Your task to perform on an android device: clear all cookies in the chrome app Image 0: 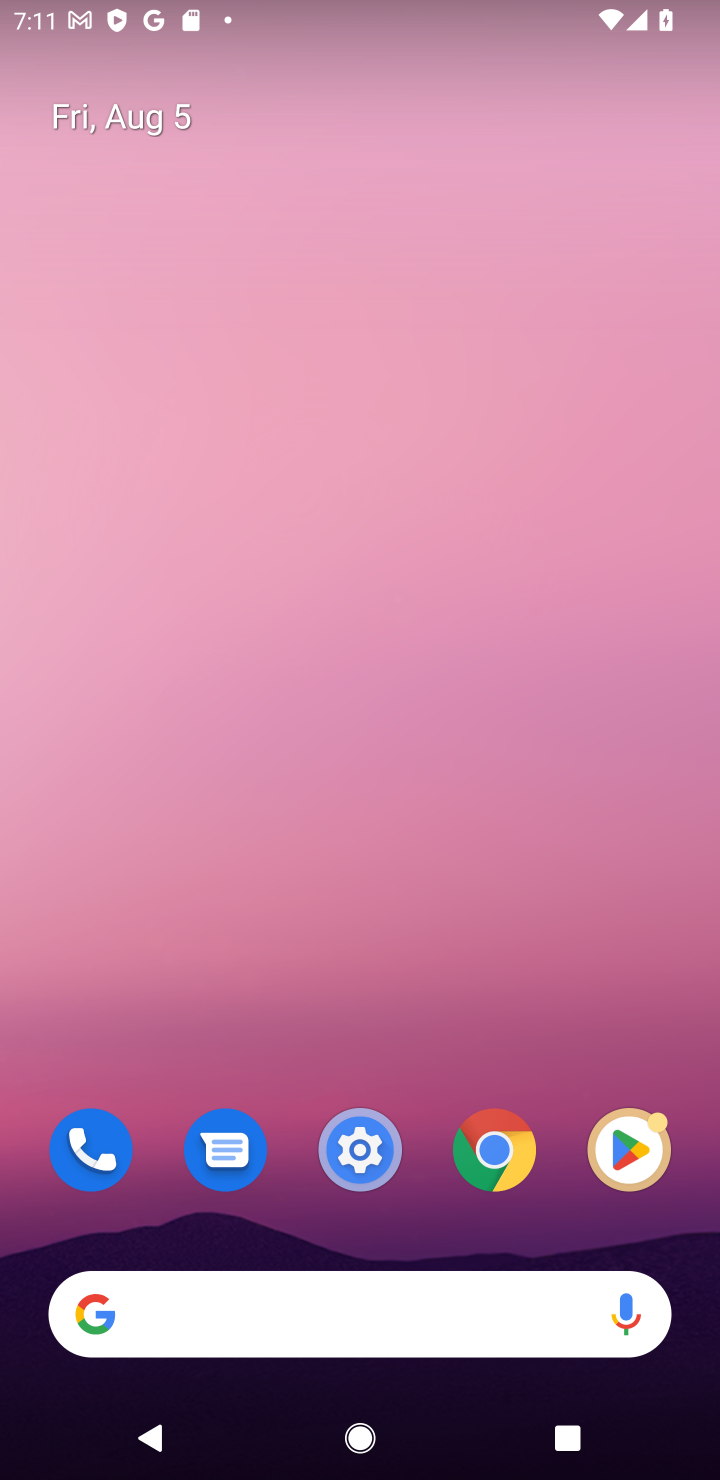
Step 0: drag from (427, 1016) to (448, 438)
Your task to perform on an android device: clear all cookies in the chrome app Image 1: 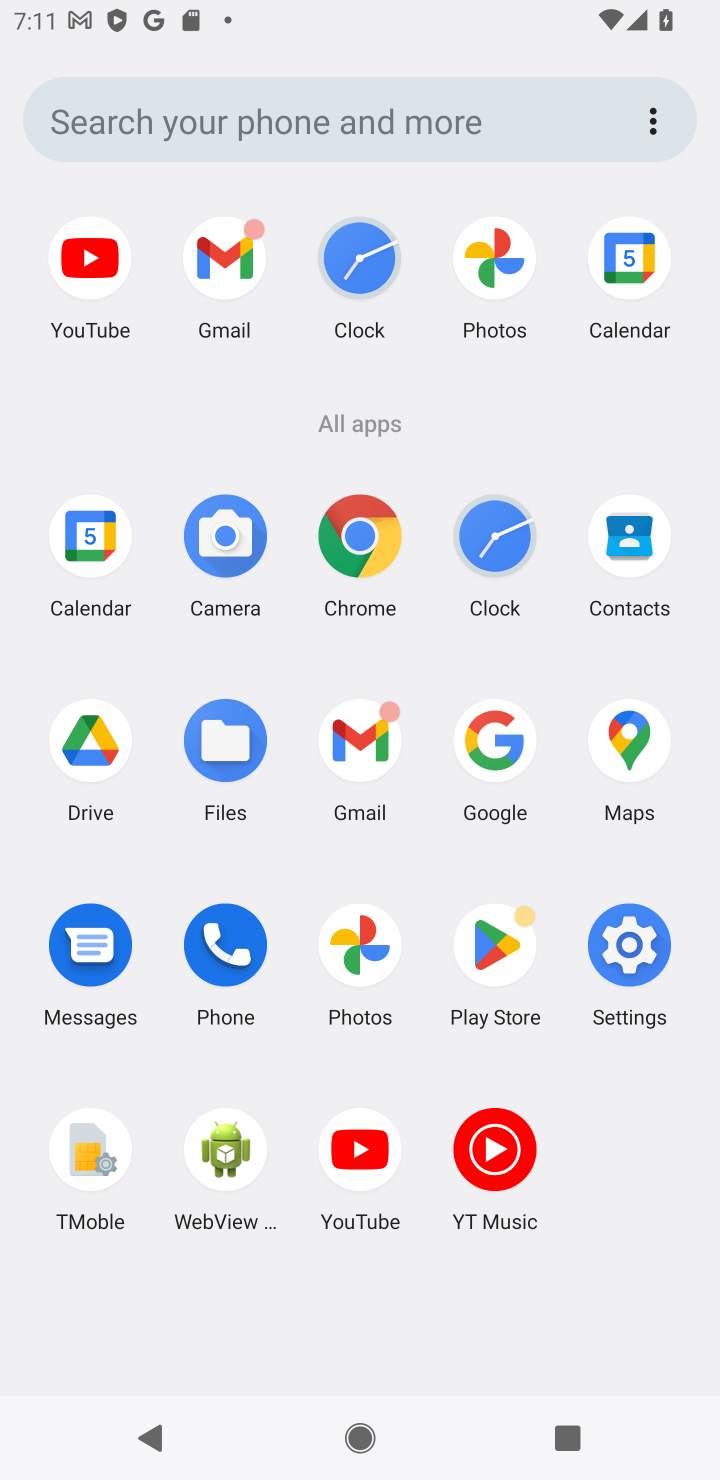
Step 1: click (376, 527)
Your task to perform on an android device: clear all cookies in the chrome app Image 2: 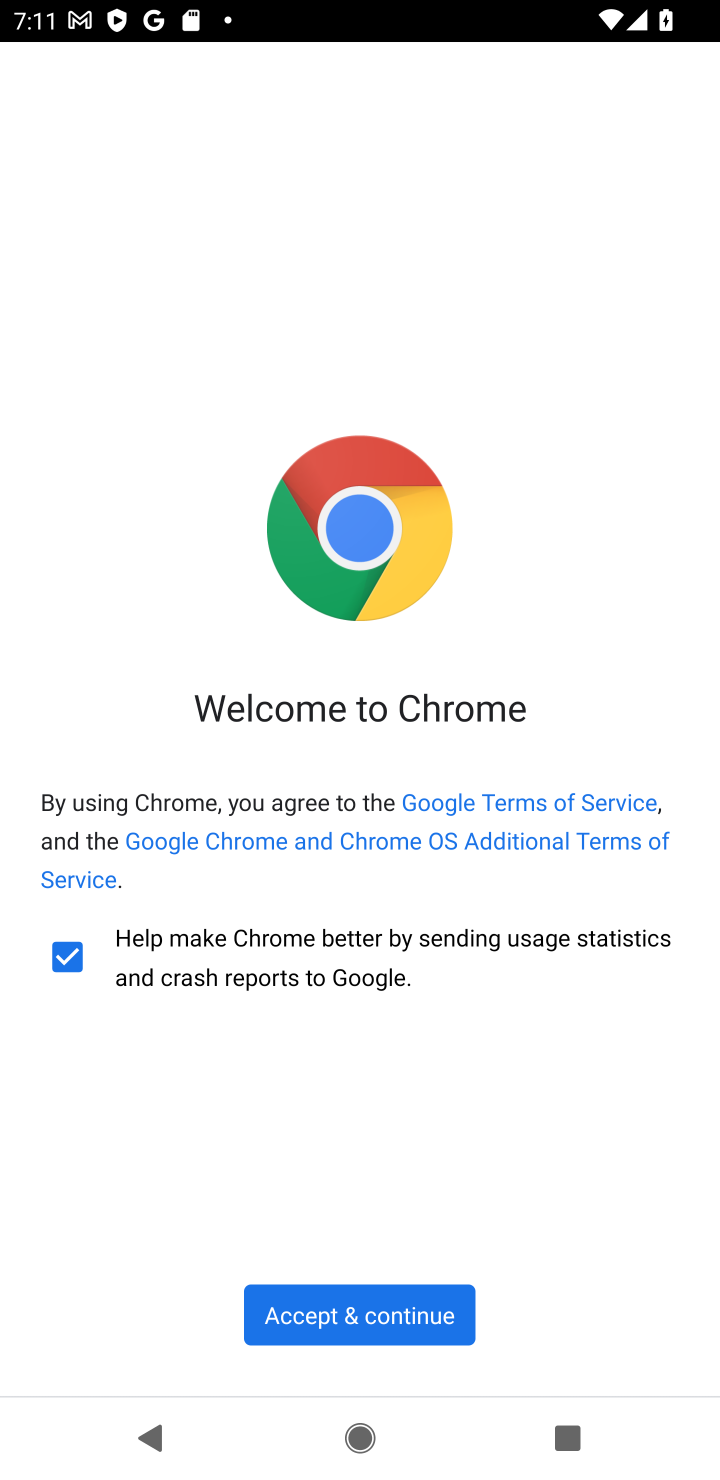
Step 2: click (335, 1309)
Your task to perform on an android device: clear all cookies in the chrome app Image 3: 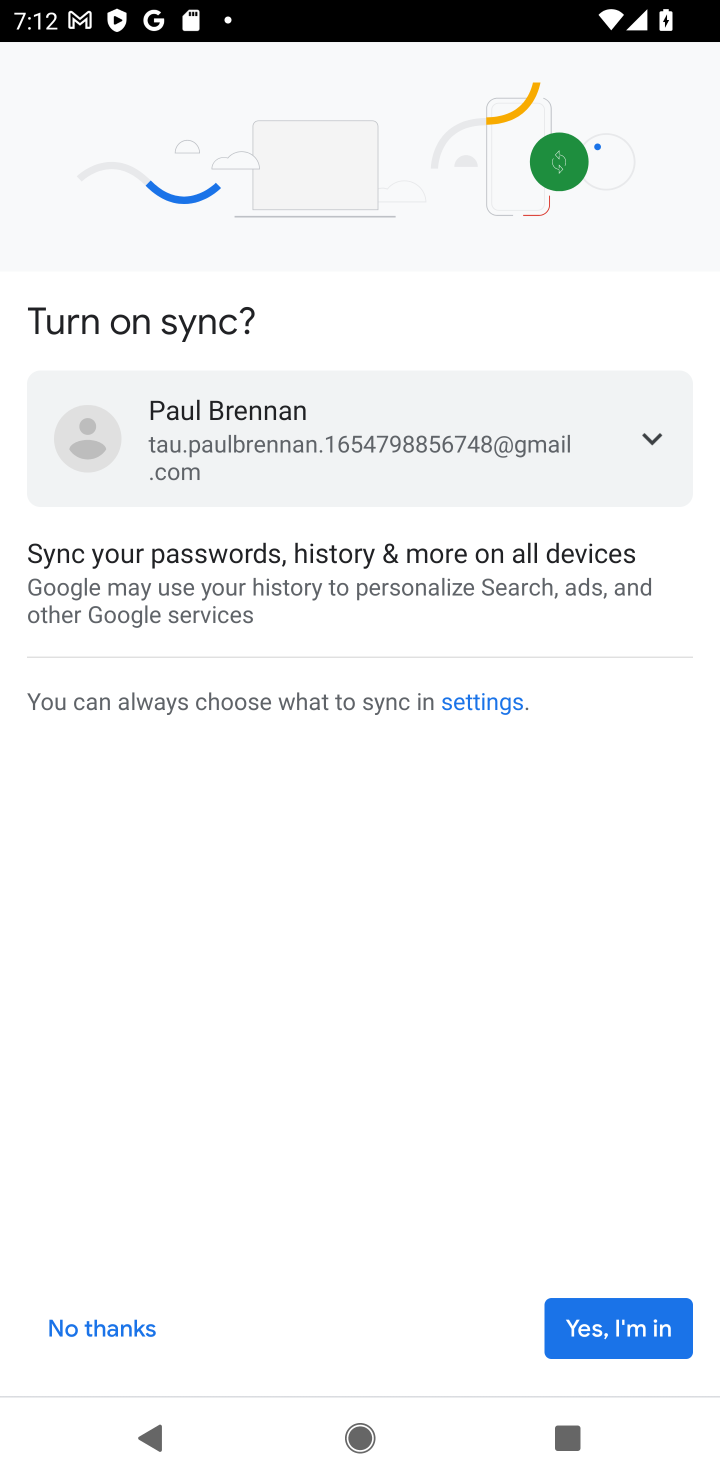
Step 3: click (607, 1330)
Your task to perform on an android device: clear all cookies in the chrome app Image 4: 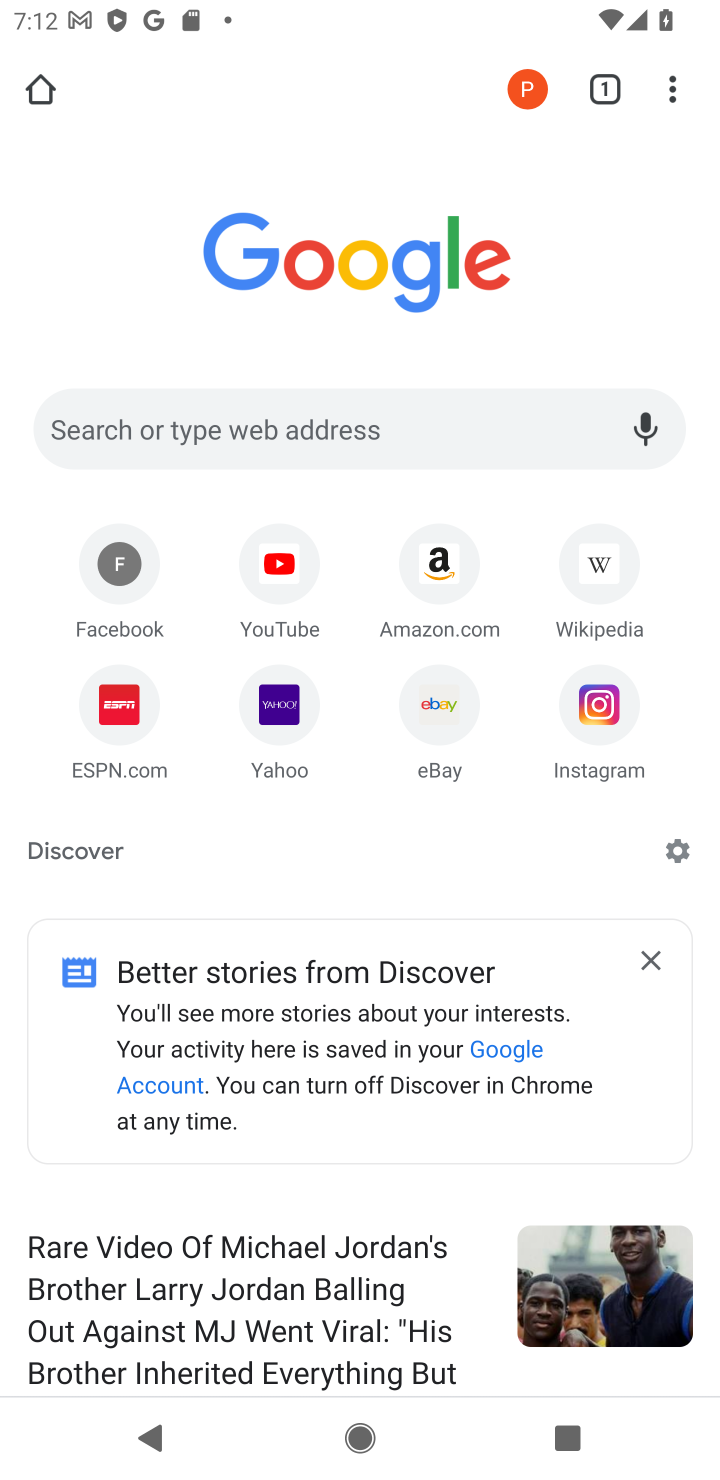
Step 4: click (675, 100)
Your task to perform on an android device: clear all cookies in the chrome app Image 5: 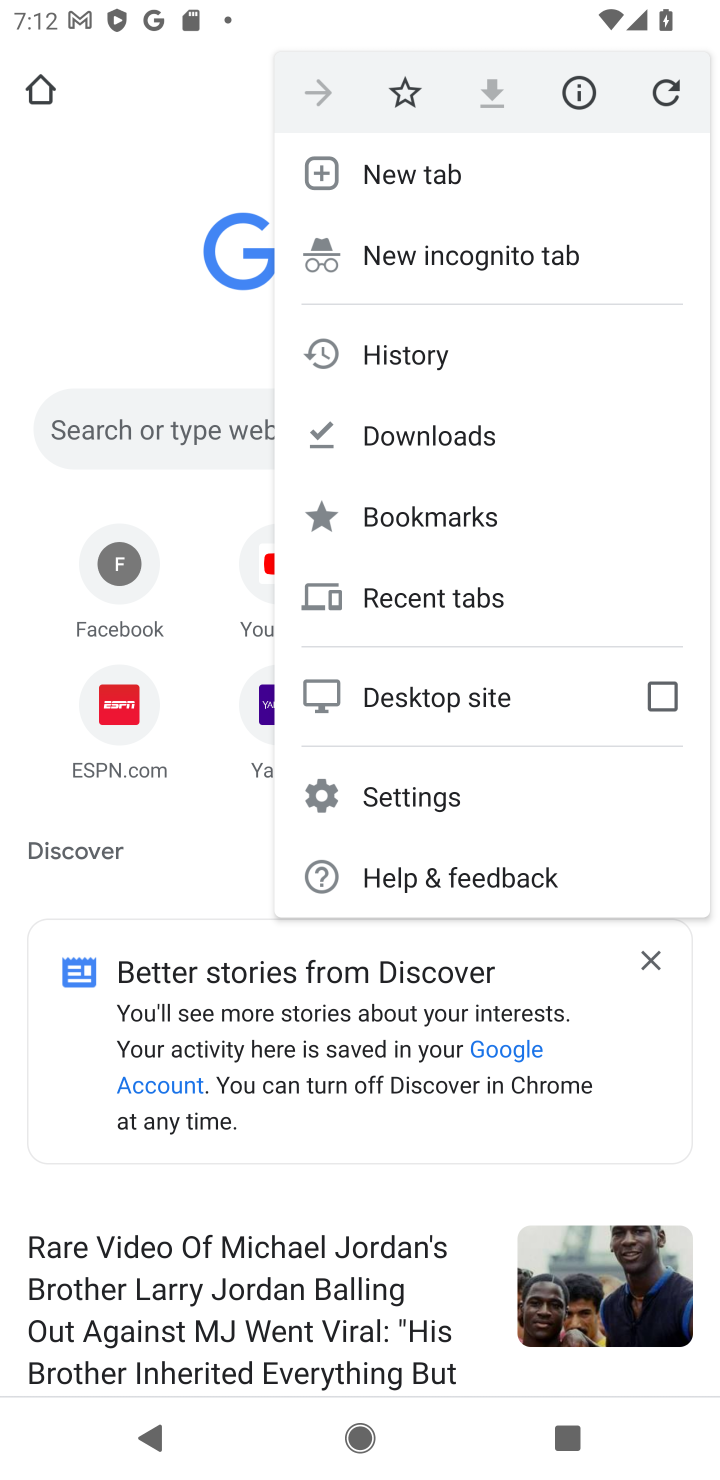
Step 5: click (441, 789)
Your task to perform on an android device: clear all cookies in the chrome app Image 6: 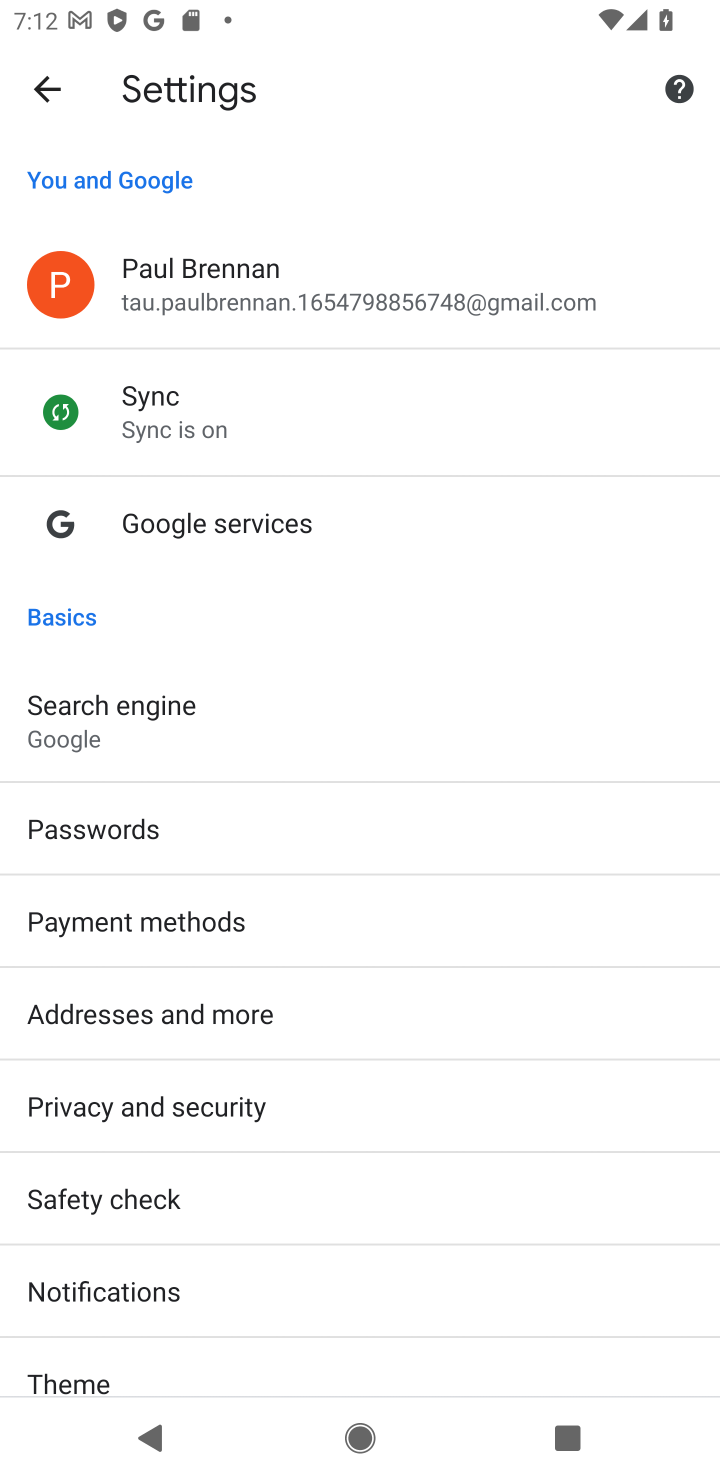
Step 6: drag from (489, 1114) to (502, 883)
Your task to perform on an android device: clear all cookies in the chrome app Image 7: 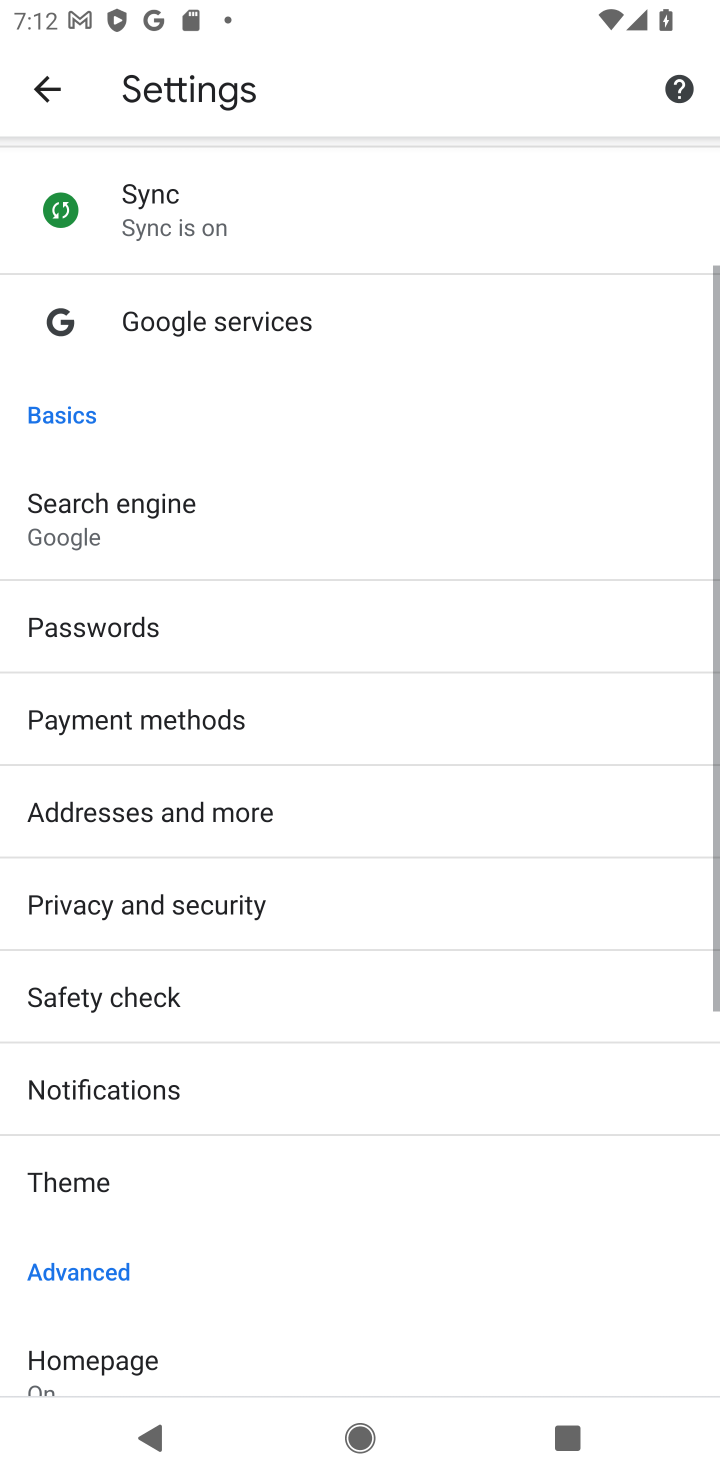
Step 7: drag from (479, 1139) to (520, 718)
Your task to perform on an android device: clear all cookies in the chrome app Image 8: 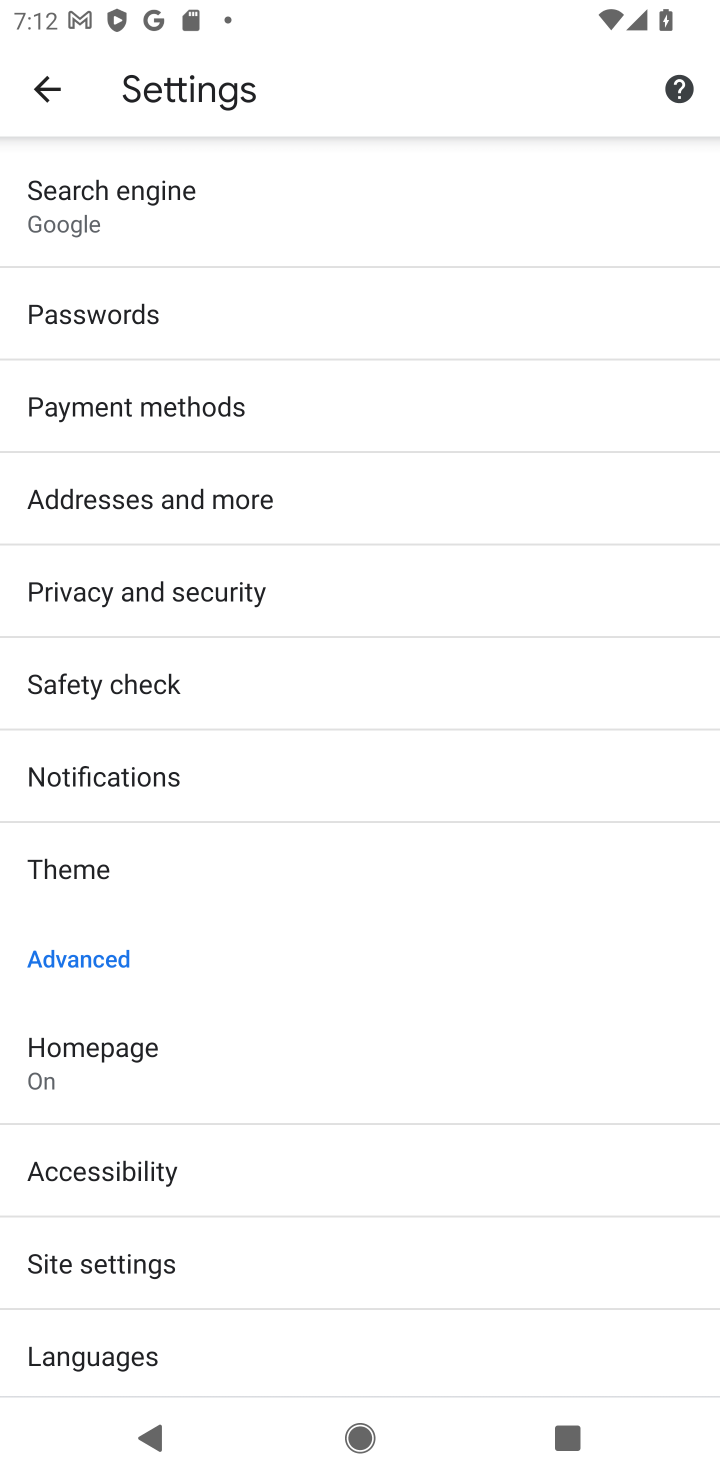
Step 8: drag from (488, 1172) to (512, 774)
Your task to perform on an android device: clear all cookies in the chrome app Image 9: 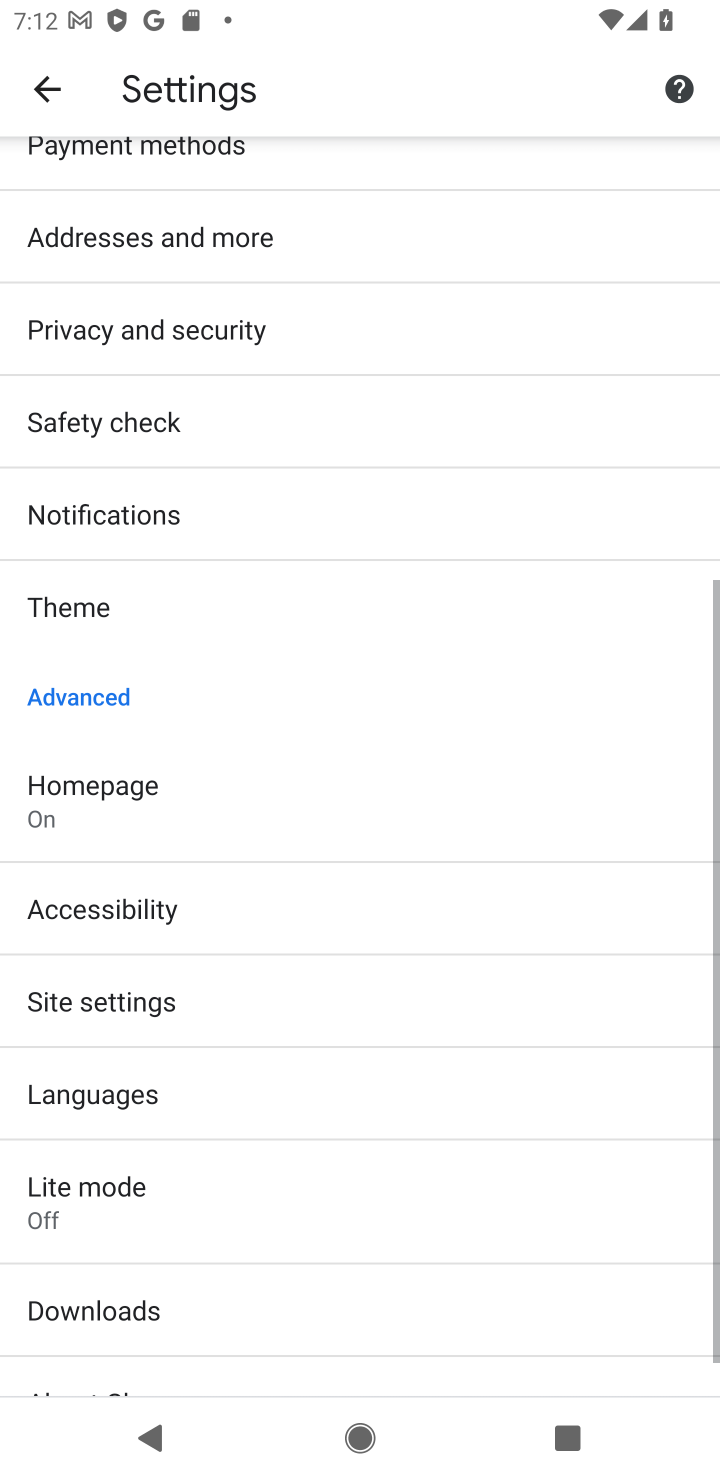
Step 9: drag from (473, 1128) to (504, 792)
Your task to perform on an android device: clear all cookies in the chrome app Image 10: 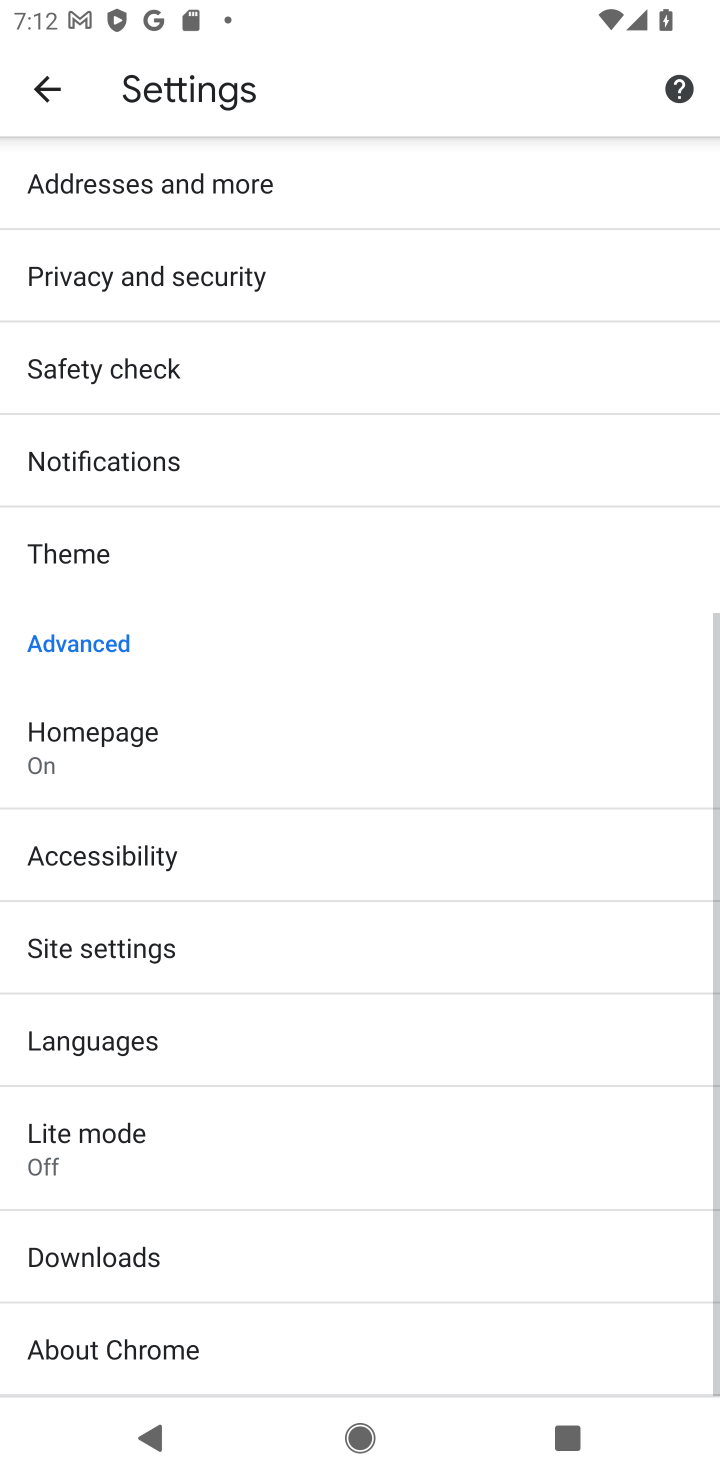
Step 10: drag from (500, 1151) to (539, 790)
Your task to perform on an android device: clear all cookies in the chrome app Image 11: 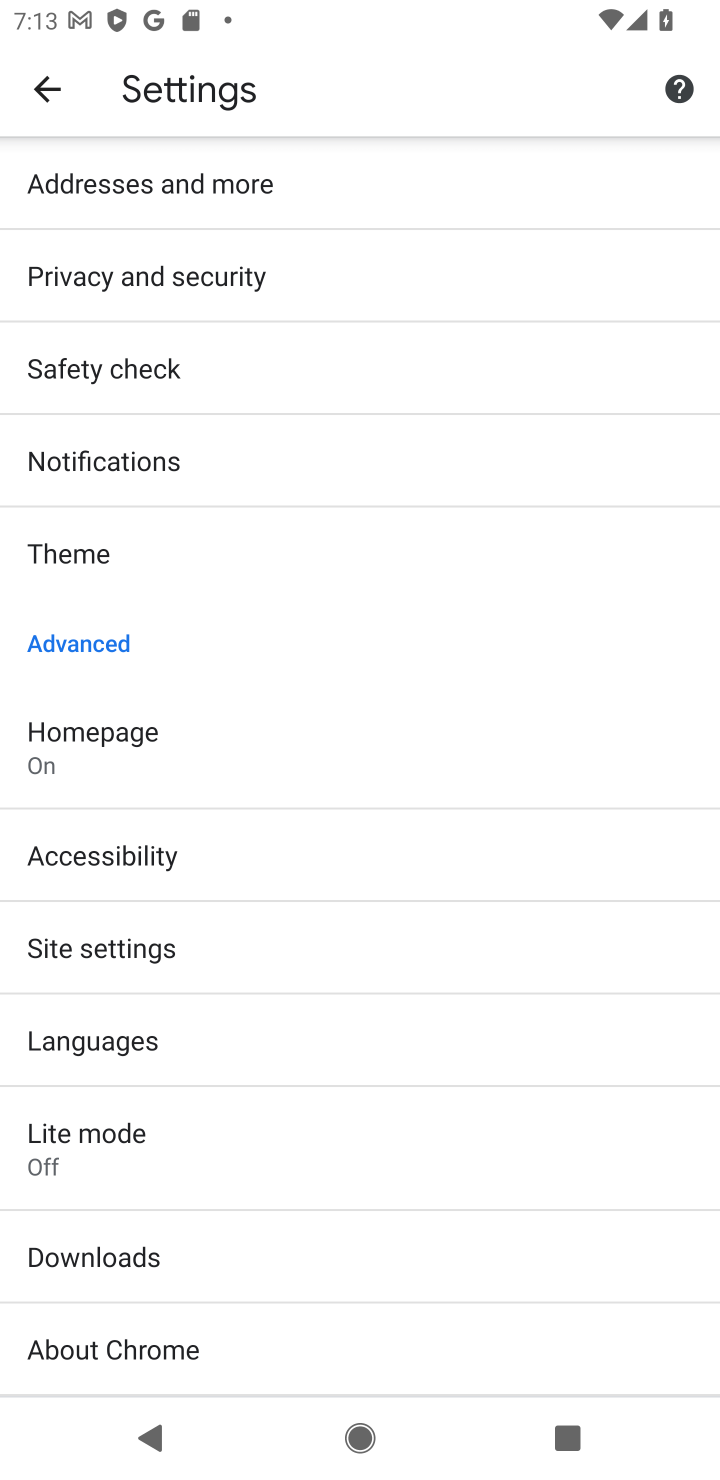
Step 11: drag from (503, 566) to (525, 964)
Your task to perform on an android device: clear all cookies in the chrome app Image 12: 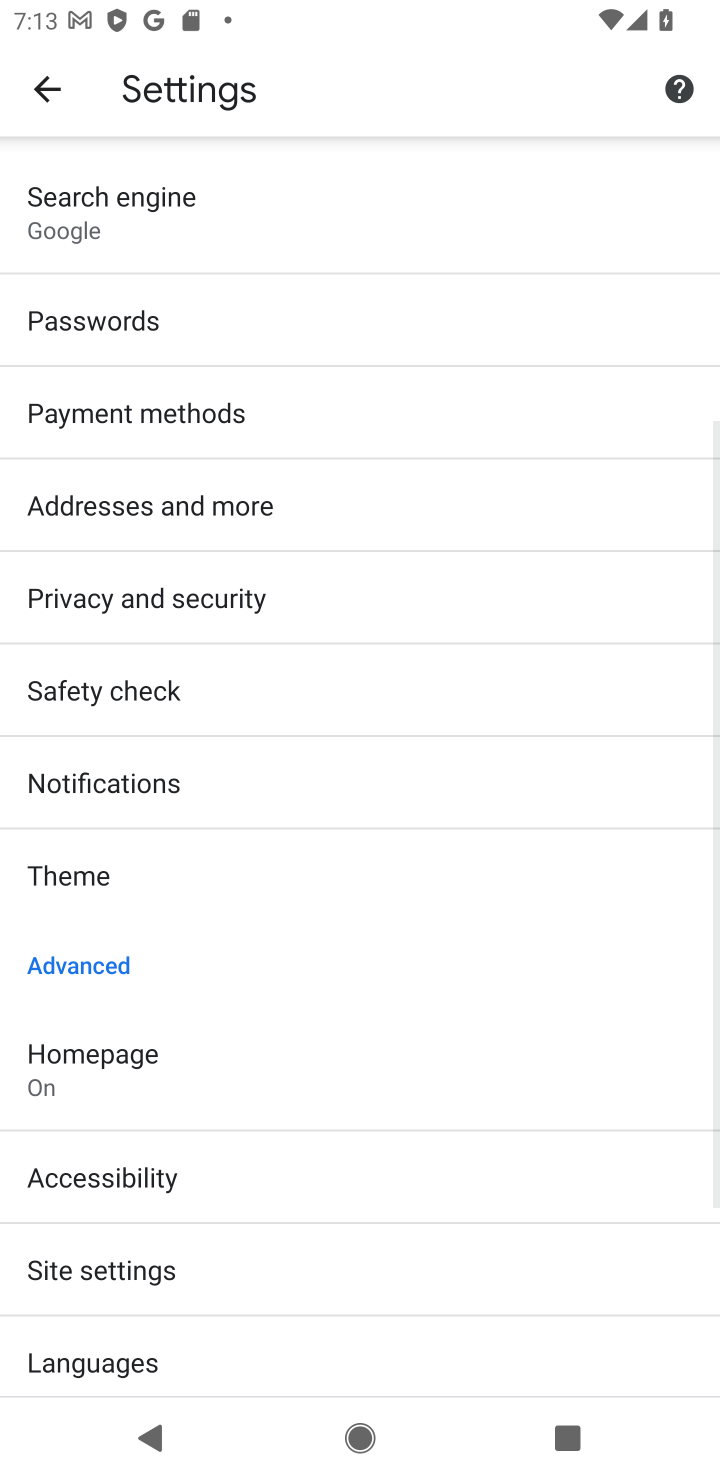
Step 12: drag from (520, 410) to (518, 880)
Your task to perform on an android device: clear all cookies in the chrome app Image 13: 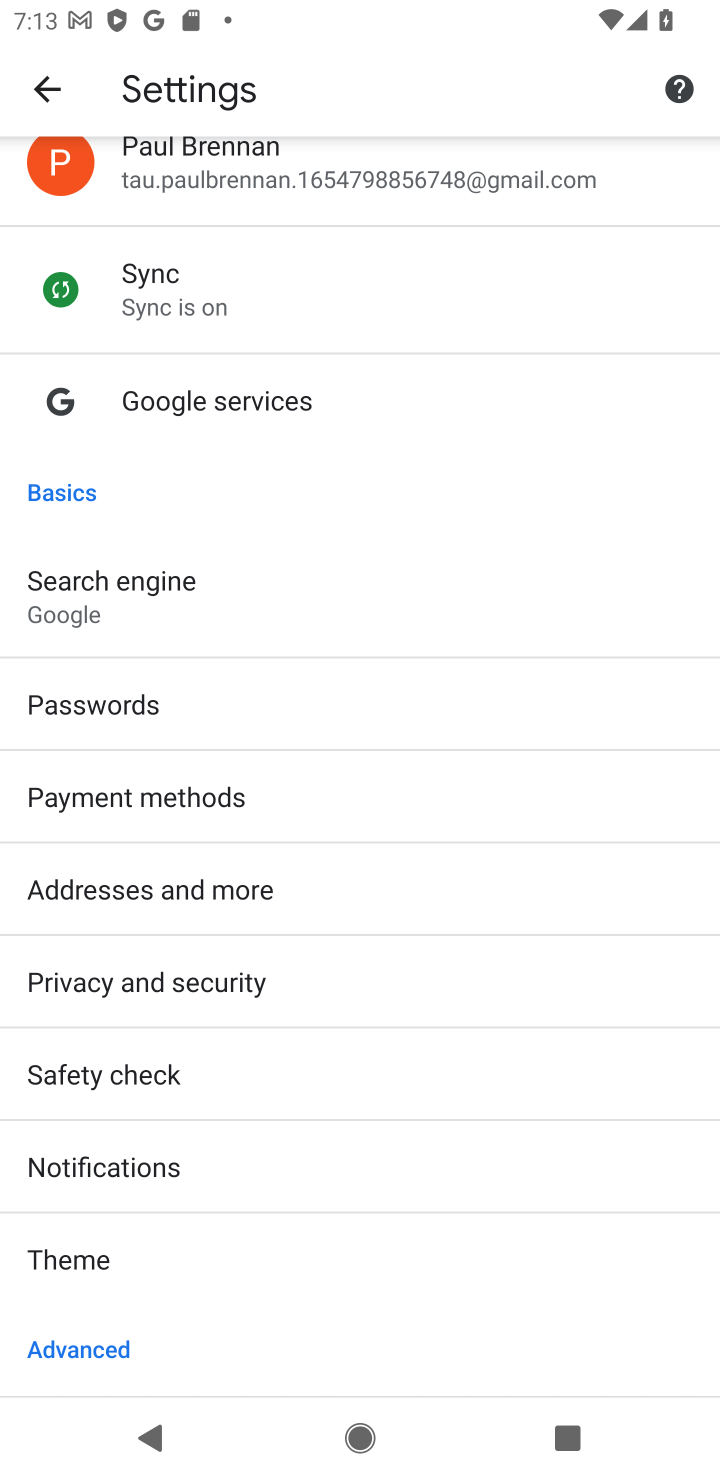
Step 13: drag from (492, 1070) to (504, 808)
Your task to perform on an android device: clear all cookies in the chrome app Image 14: 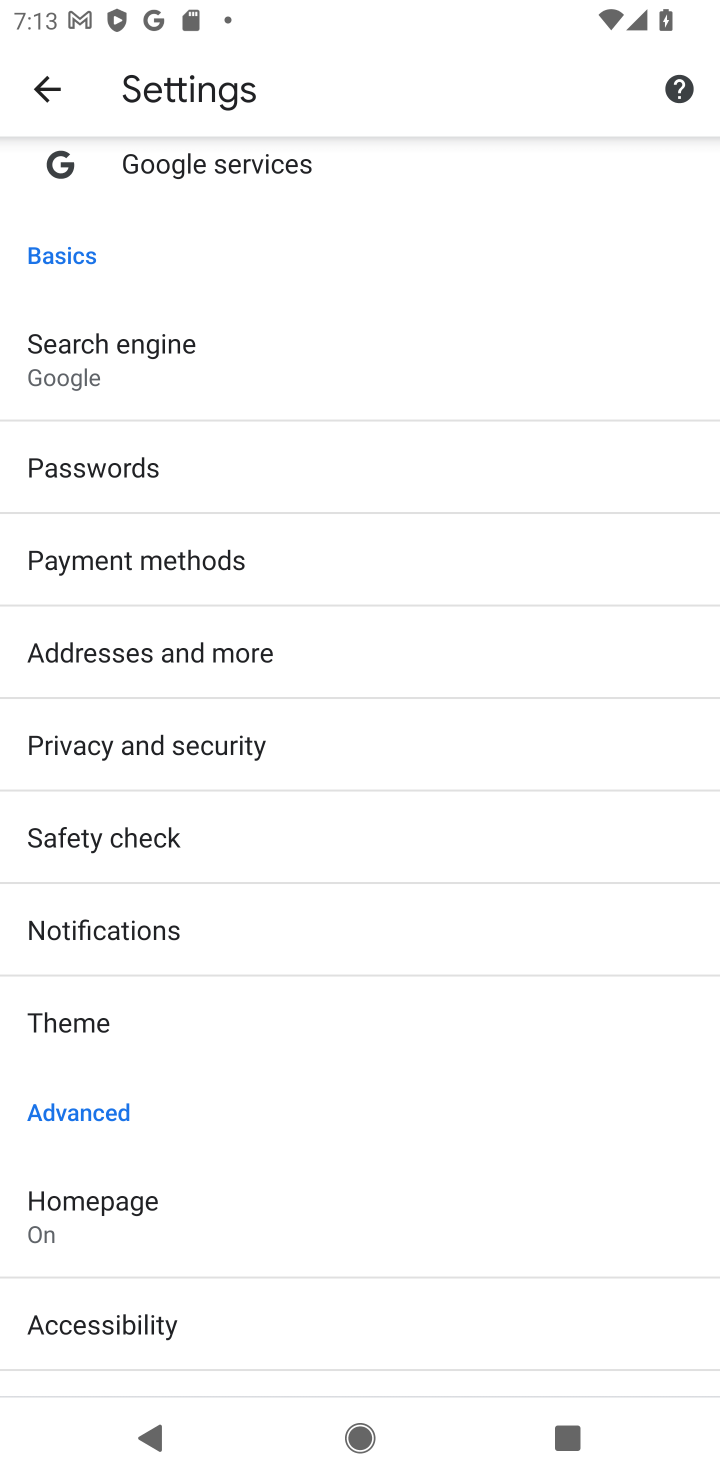
Step 14: drag from (446, 1138) to (477, 838)
Your task to perform on an android device: clear all cookies in the chrome app Image 15: 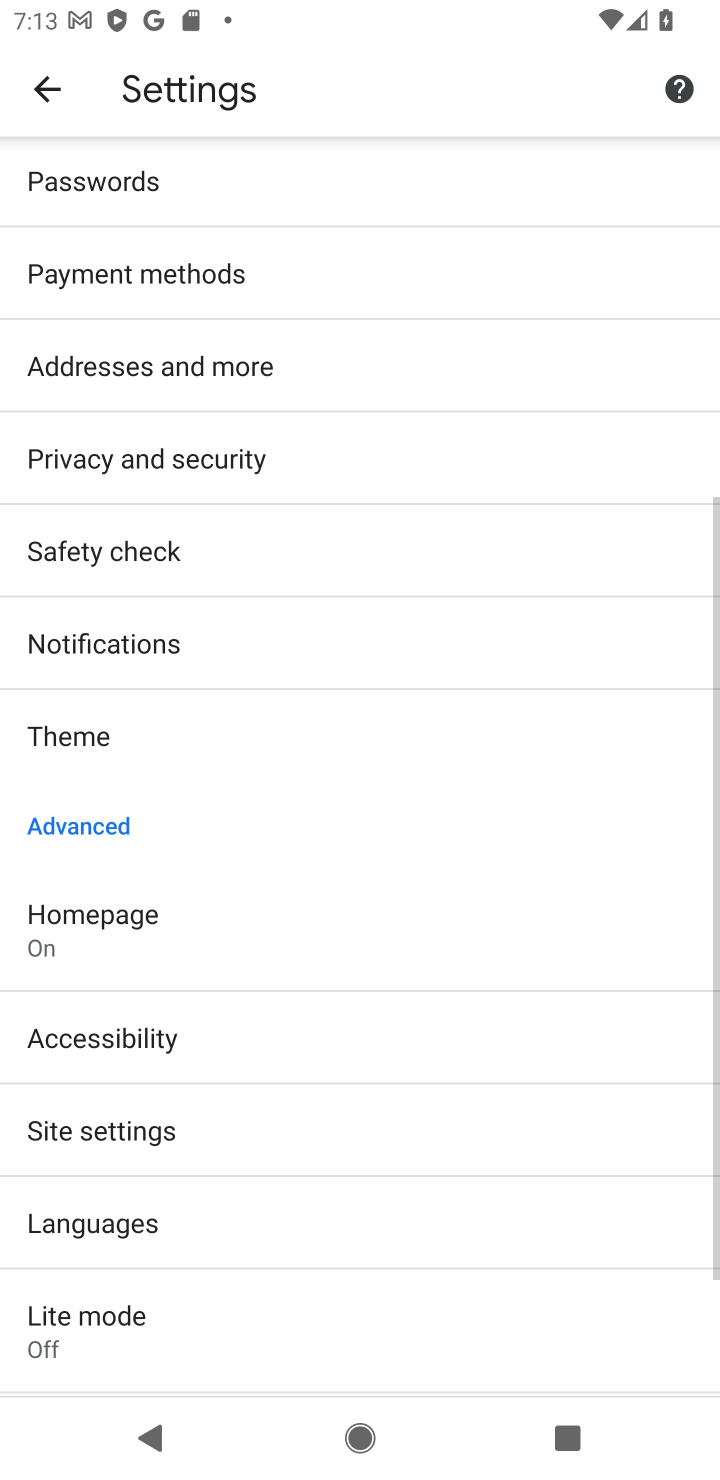
Step 15: drag from (427, 1168) to (455, 800)
Your task to perform on an android device: clear all cookies in the chrome app Image 16: 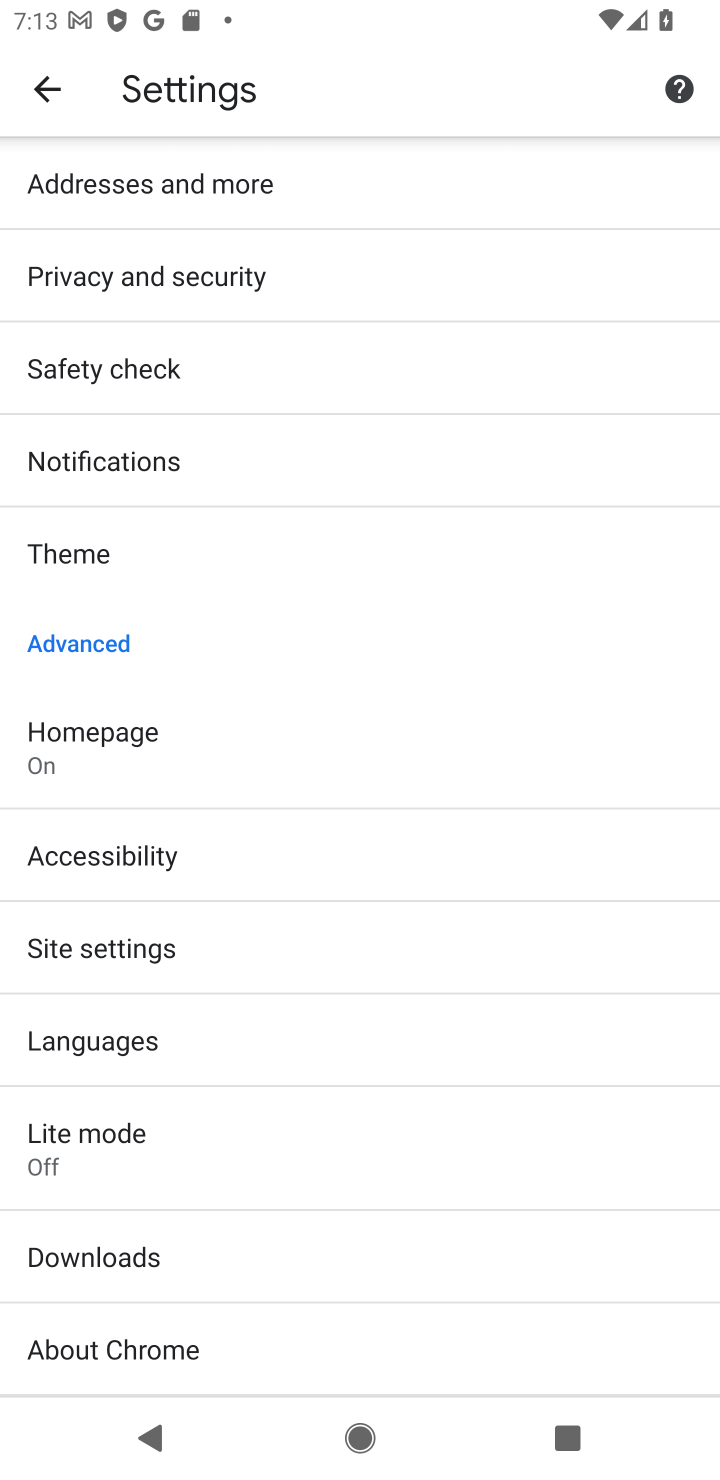
Step 16: drag from (446, 498) to (448, 942)
Your task to perform on an android device: clear all cookies in the chrome app Image 17: 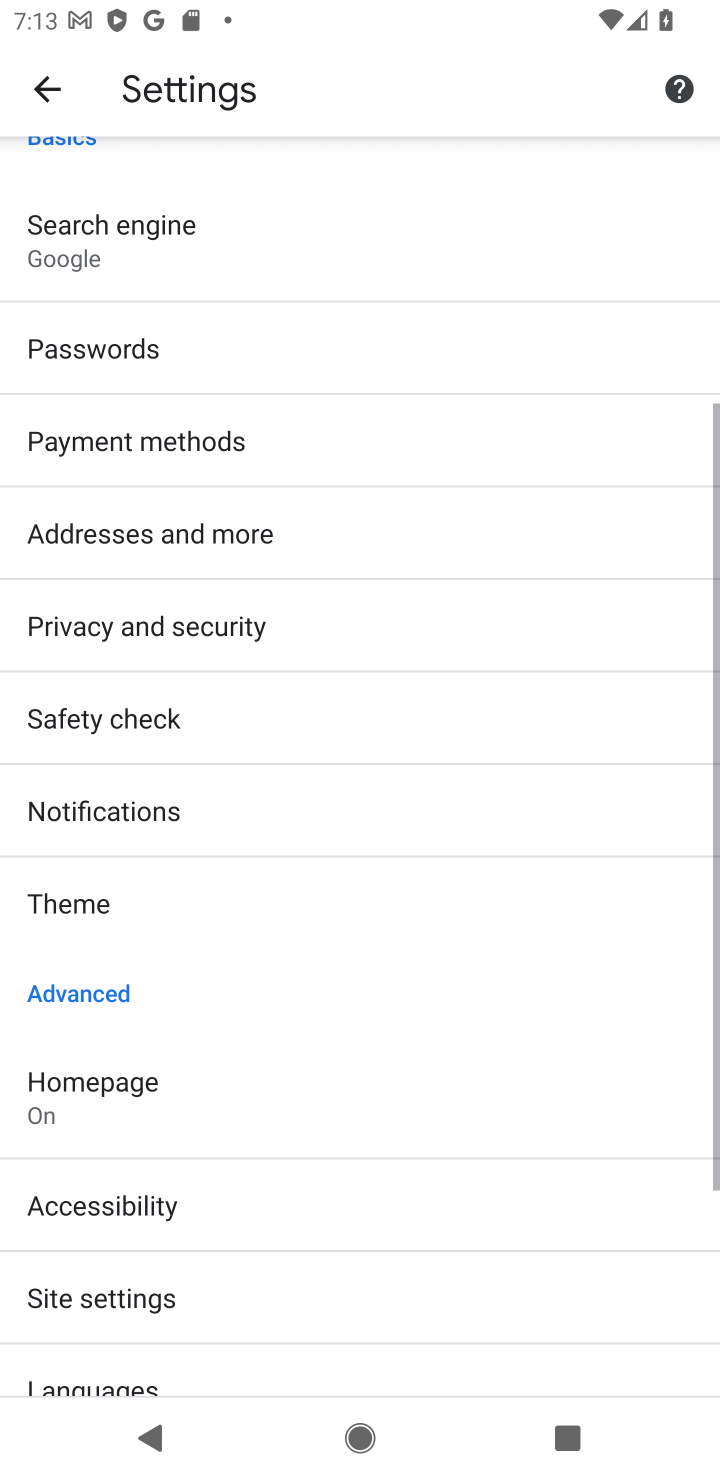
Step 17: drag from (474, 380) to (462, 880)
Your task to perform on an android device: clear all cookies in the chrome app Image 18: 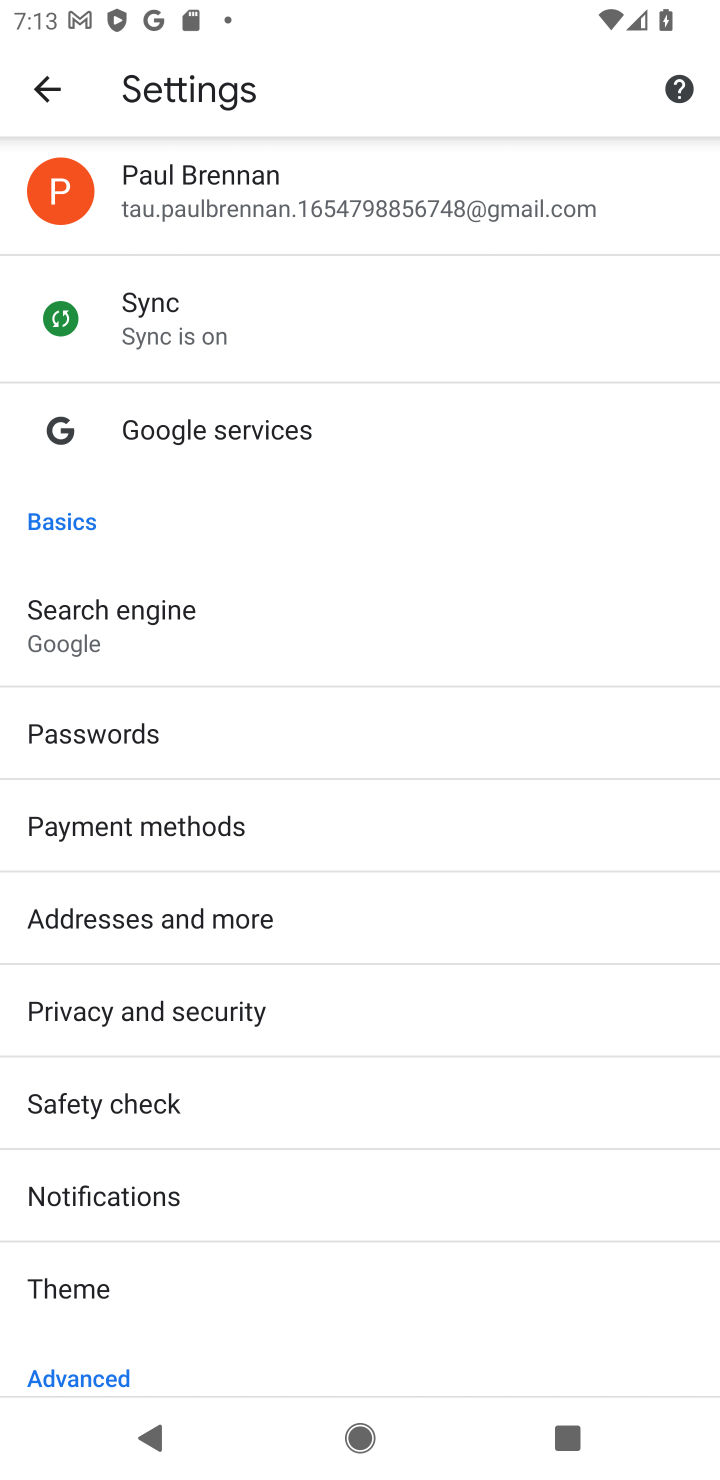
Step 18: drag from (487, 1099) to (482, 788)
Your task to perform on an android device: clear all cookies in the chrome app Image 19: 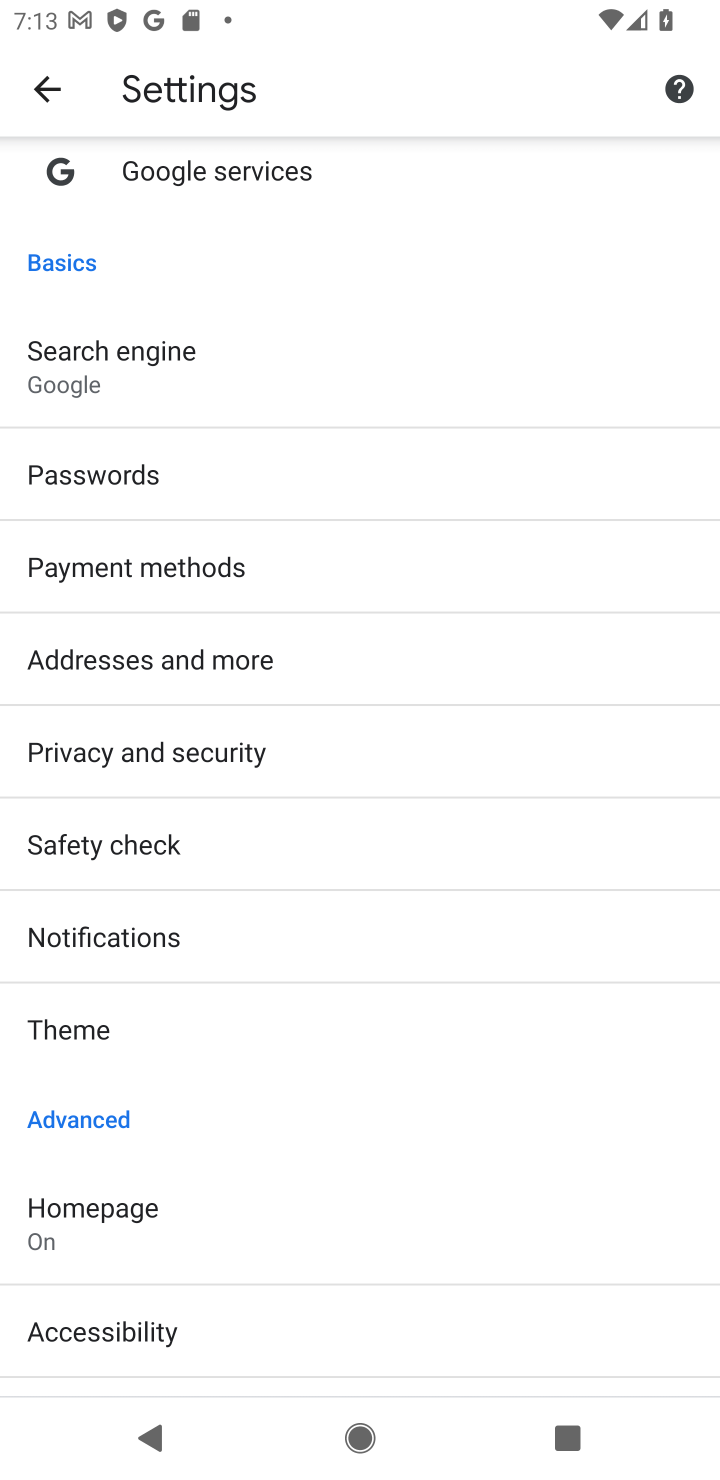
Step 19: drag from (462, 1126) to (484, 805)
Your task to perform on an android device: clear all cookies in the chrome app Image 20: 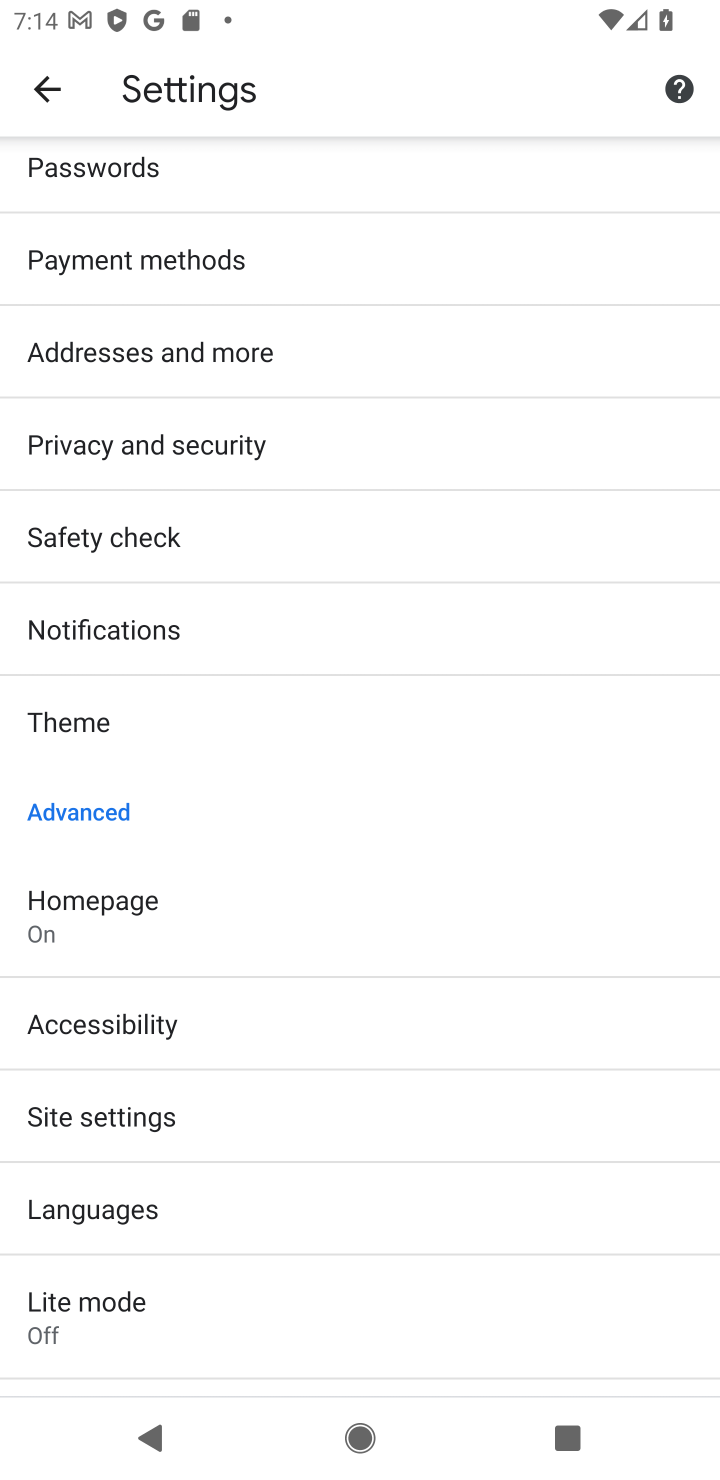
Step 20: click (359, 428)
Your task to perform on an android device: clear all cookies in the chrome app Image 21: 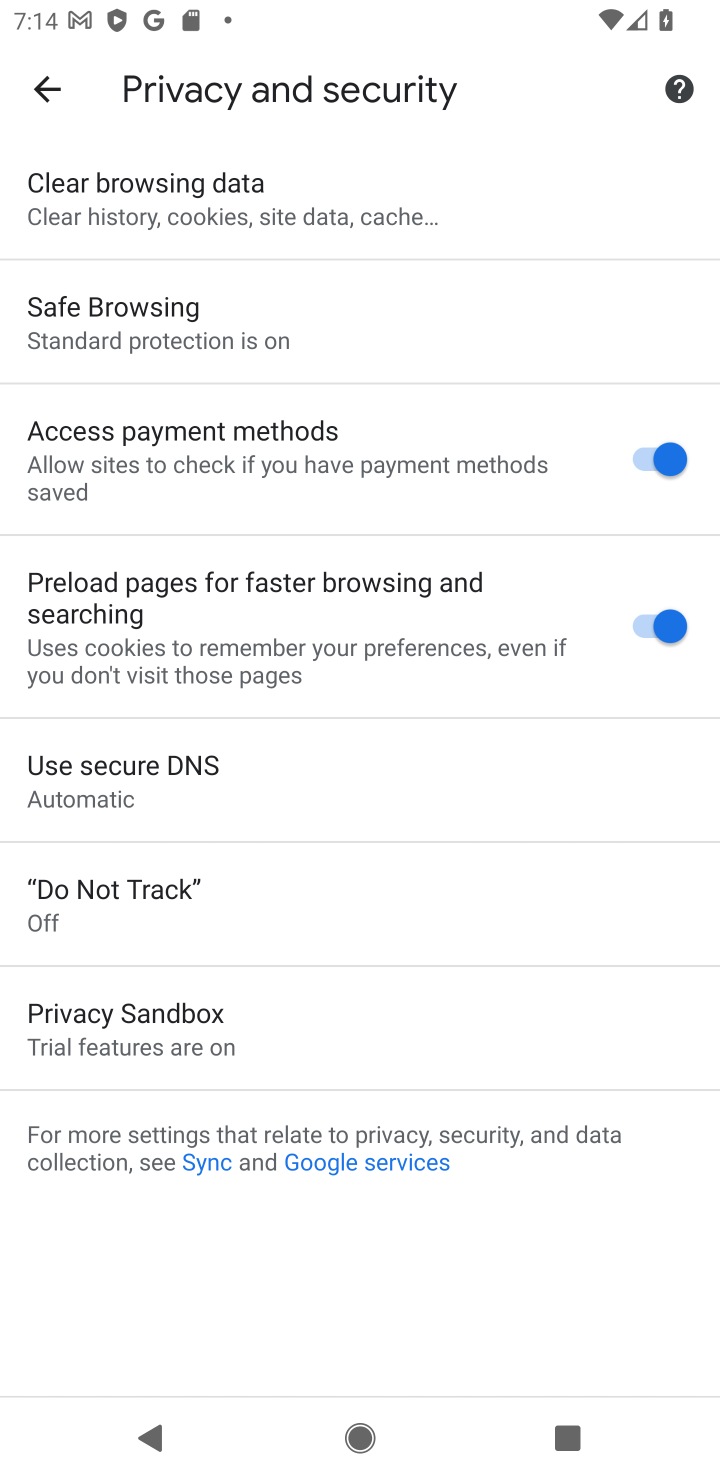
Step 21: click (390, 194)
Your task to perform on an android device: clear all cookies in the chrome app Image 22: 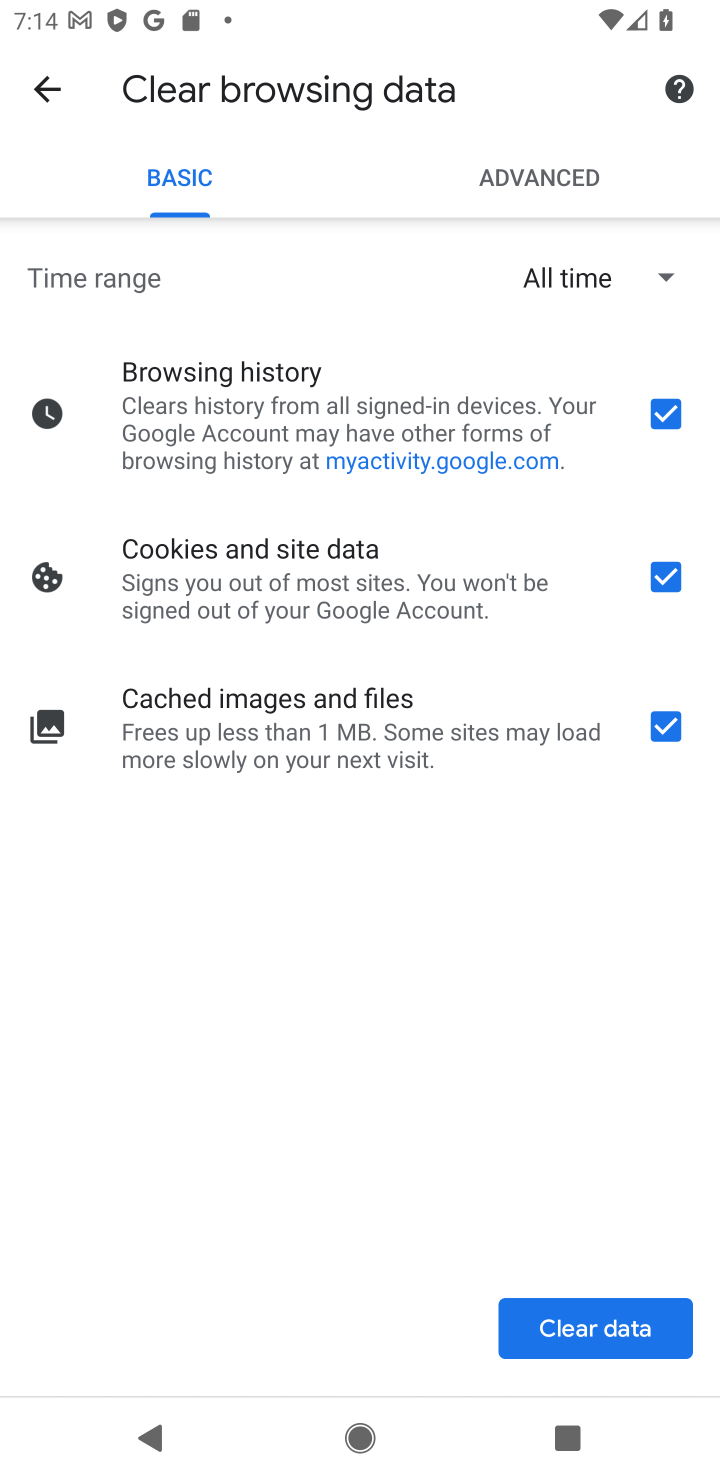
Step 22: click (602, 1319)
Your task to perform on an android device: clear all cookies in the chrome app Image 23: 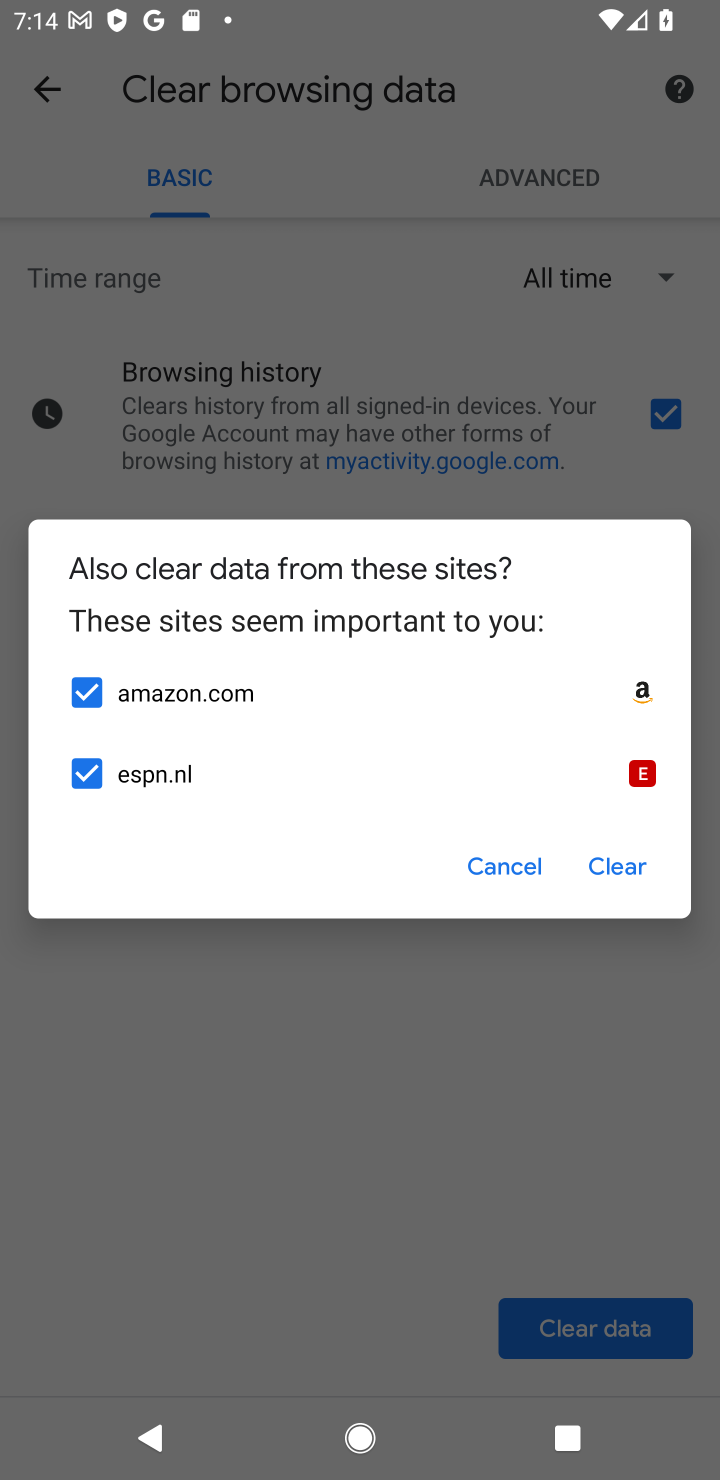
Step 23: click (627, 866)
Your task to perform on an android device: clear all cookies in the chrome app Image 24: 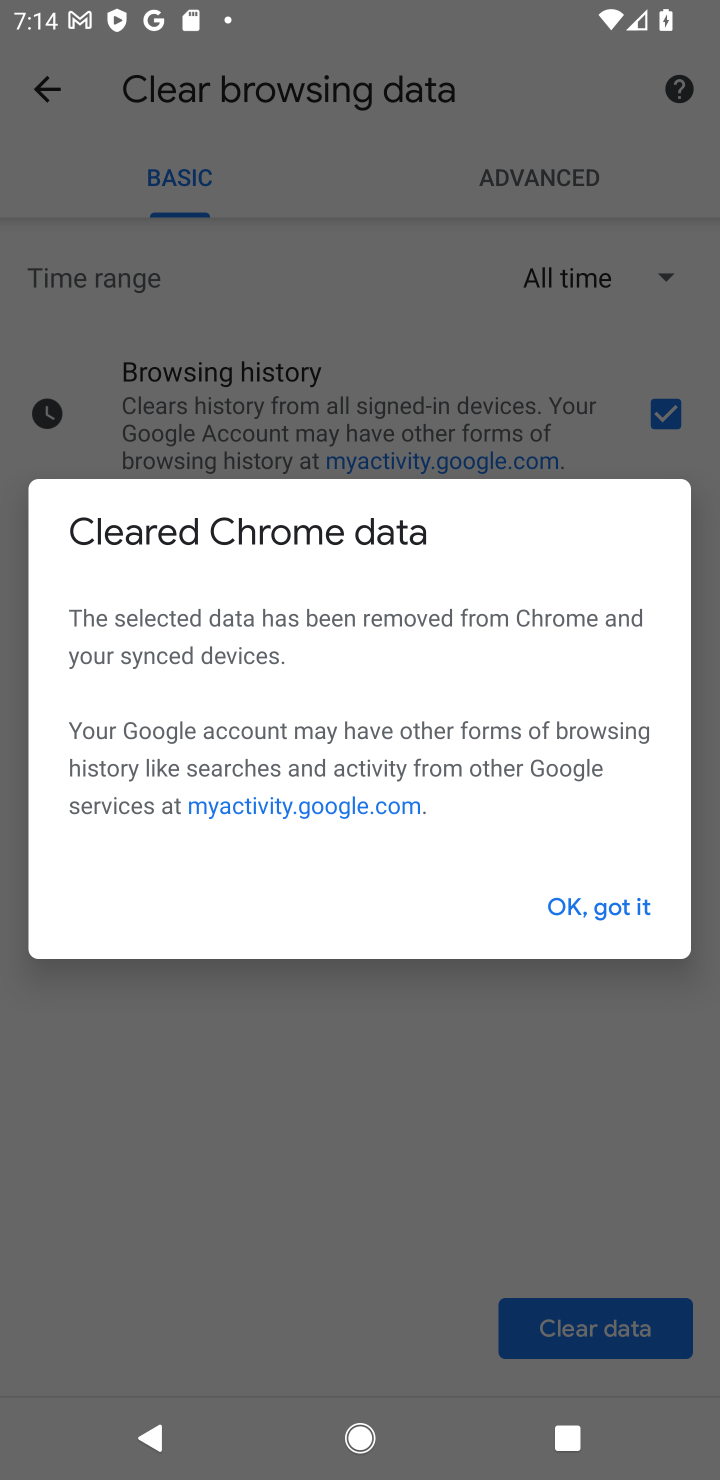
Step 24: click (620, 902)
Your task to perform on an android device: clear all cookies in the chrome app Image 25: 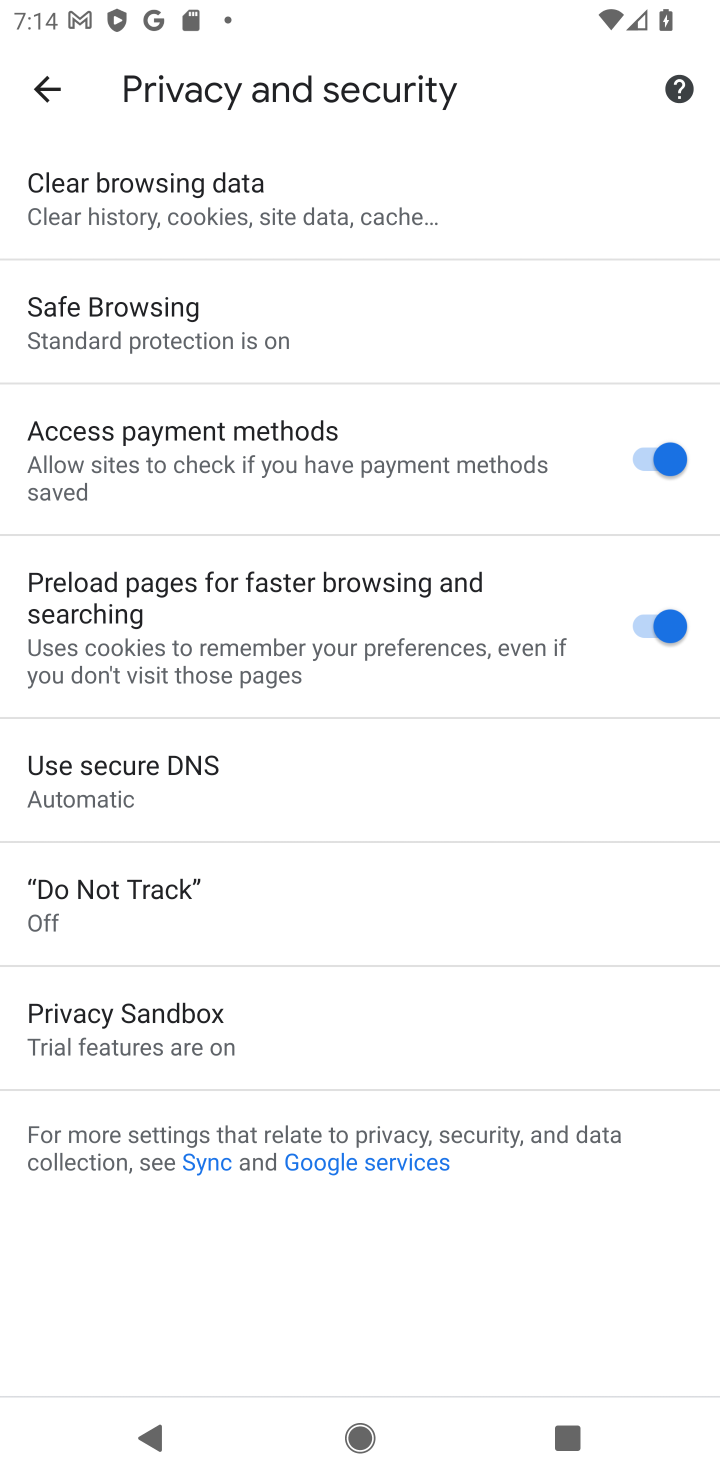
Step 25: task complete